Your task to perform on an android device: turn pop-ups off in chrome Image 0: 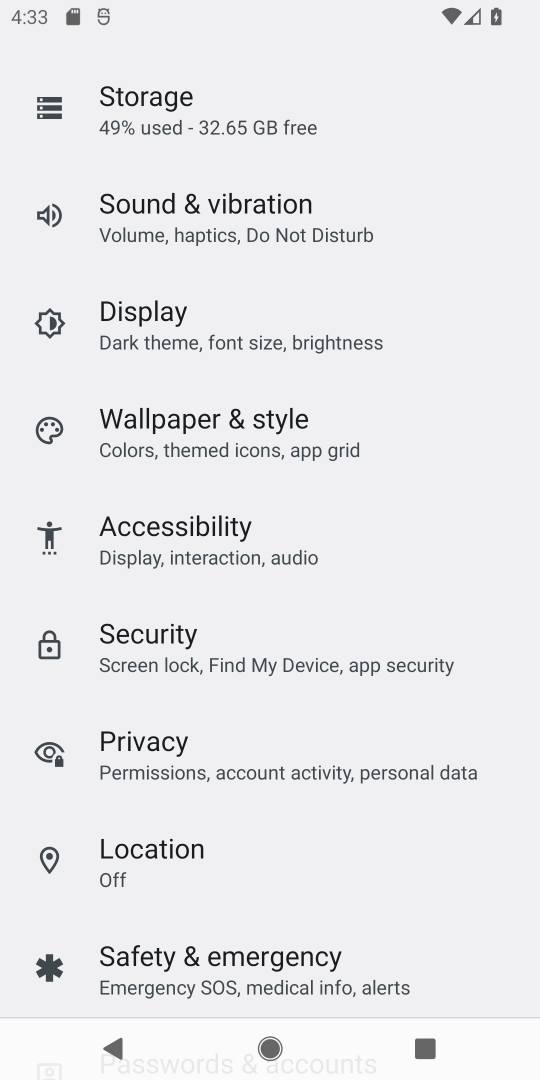
Step 0: press home button
Your task to perform on an android device: turn pop-ups off in chrome Image 1: 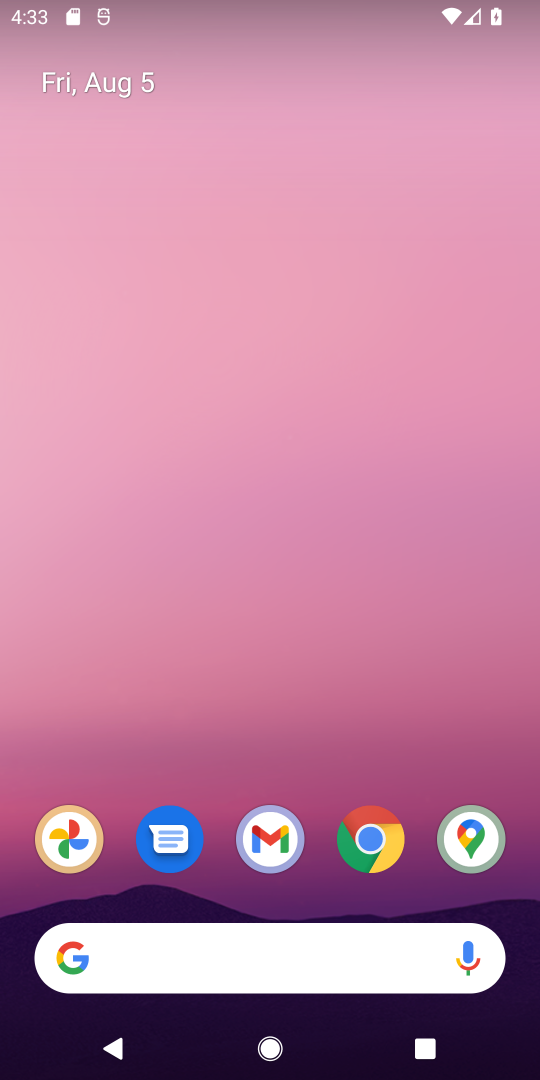
Step 1: click (368, 815)
Your task to perform on an android device: turn pop-ups off in chrome Image 2: 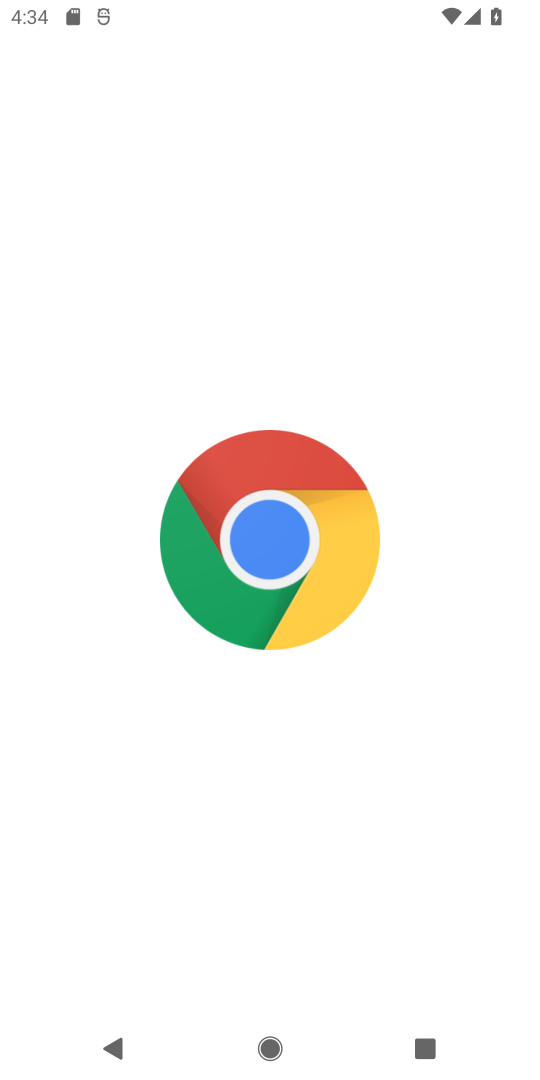
Step 2: task complete